Your task to perform on an android device: Turn on the flashlight Image 0: 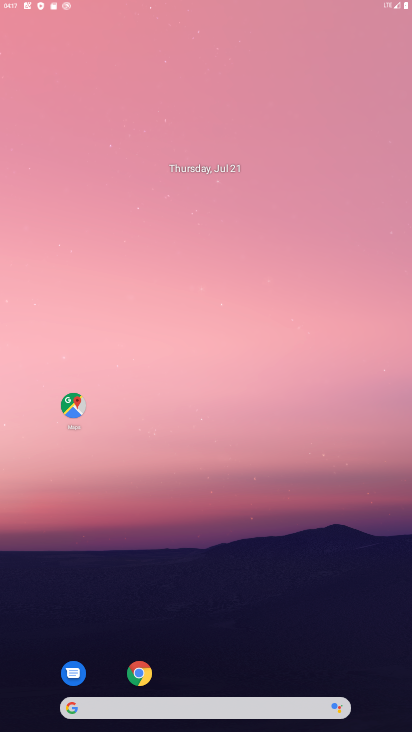
Step 0: drag from (318, 592) to (277, 184)
Your task to perform on an android device: Turn on the flashlight Image 1: 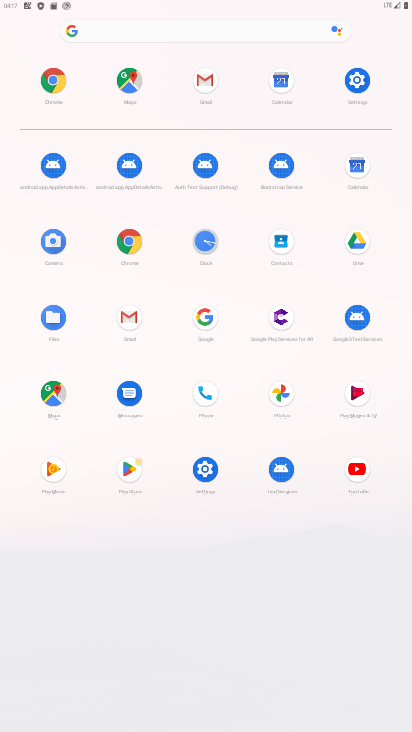
Step 1: click (353, 88)
Your task to perform on an android device: Turn on the flashlight Image 2: 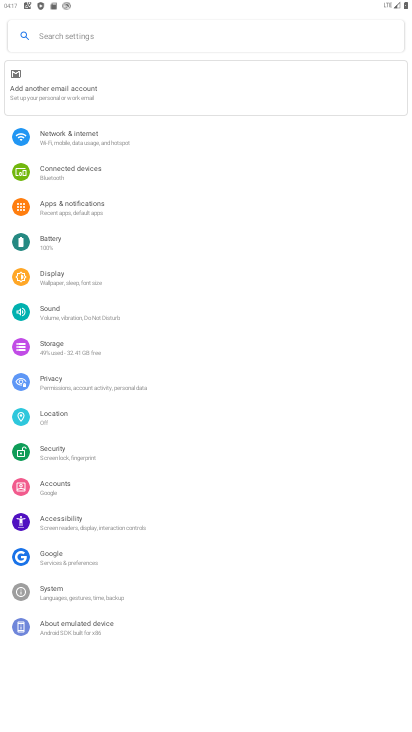
Step 2: click (53, 284)
Your task to perform on an android device: Turn on the flashlight Image 3: 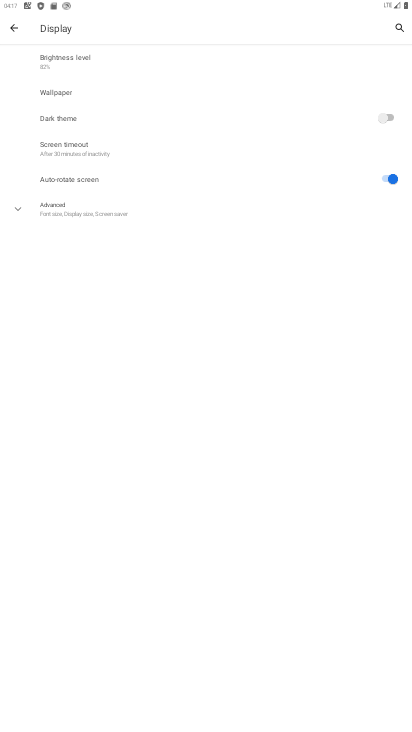
Step 3: click (88, 142)
Your task to perform on an android device: Turn on the flashlight Image 4: 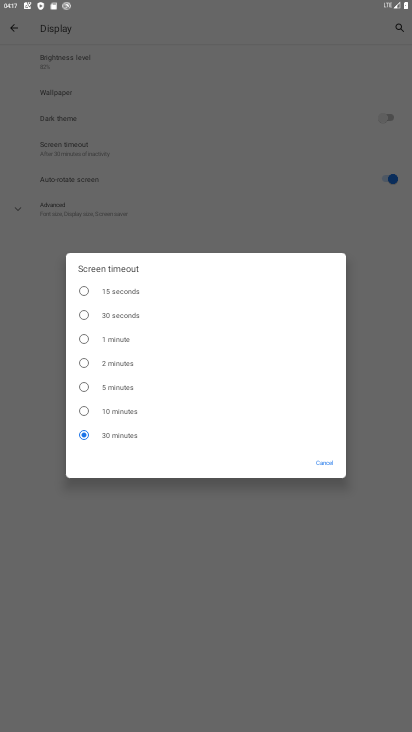
Step 4: task complete